Your task to perform on an android device: Open Chrome and go to settings Image 0: 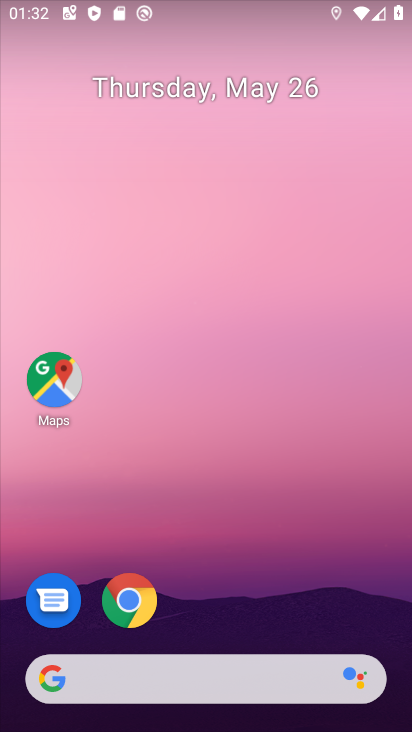
Step 0: click (150, 593)
Your task to perform on an android device: Open Chrome and go to settings Image 1: 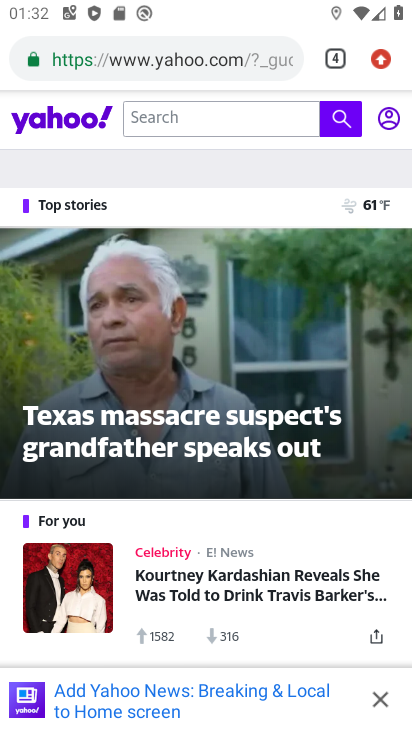
Step 1: click (220, 72)
Your task to perform on an android device: Open Chrome and go to settings Image 2: 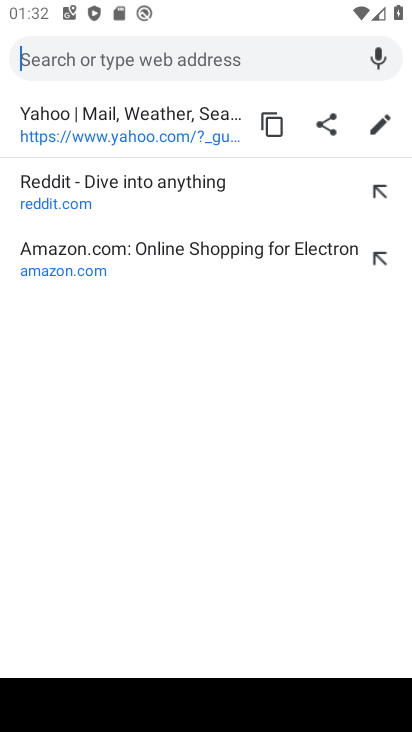
Step 2: press back button
Your task to perform on an android device: Open Chrome and go to settings Image 3: 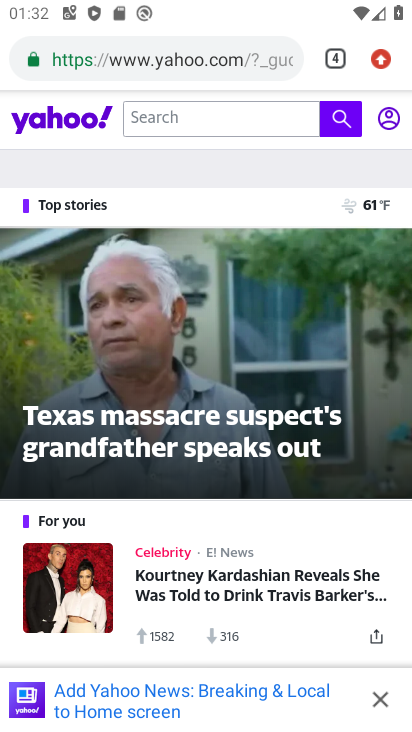
Step 3: click (333, 47)
Your task to perform on an android device: Open Chrome and go to settings Image 4: 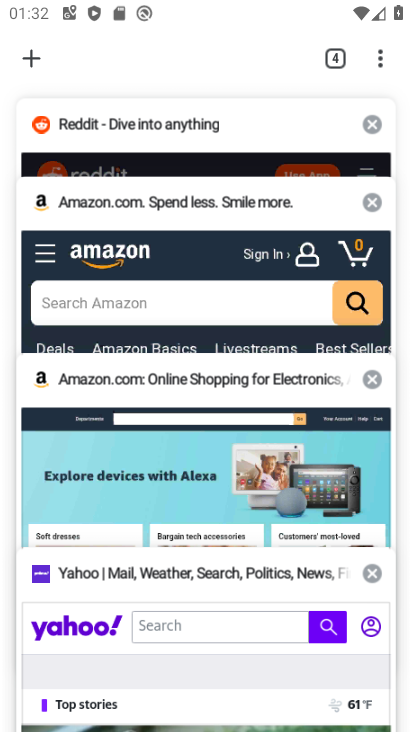
Step 4: click (376, 57)
Your task to perform on an android device: Open Chrome and go to settings Image 5: 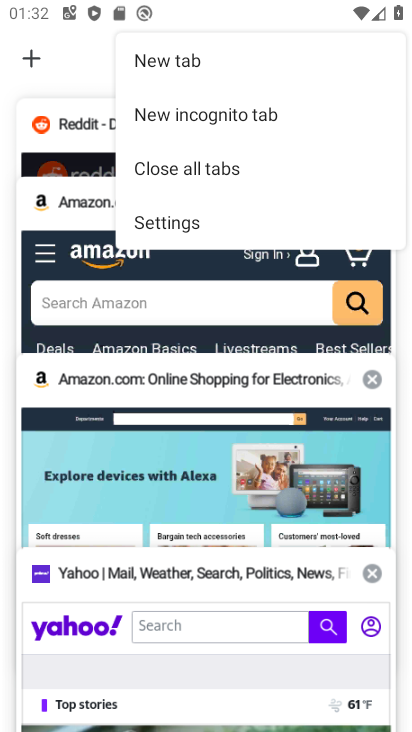
Step 5: click (216, 210)
Your task to perform on an android device: Open Chrome and go to settings Image 6: 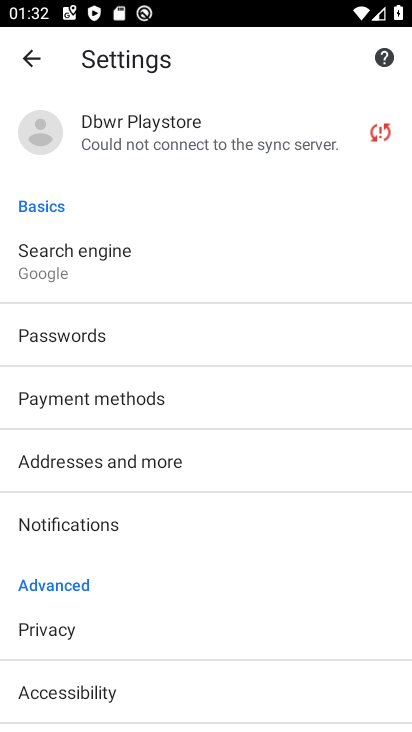
Step 6: task complete